Your task to perform on an android device: change notification settings in the gmail app Image 0: 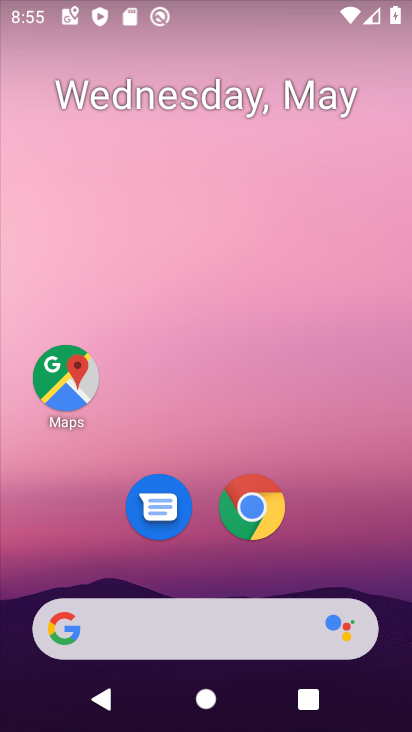
Step 0: drag from (349, 550) to (230, 87)
Your task to perform on an android device: change notification settings in the gmail app Image 1: 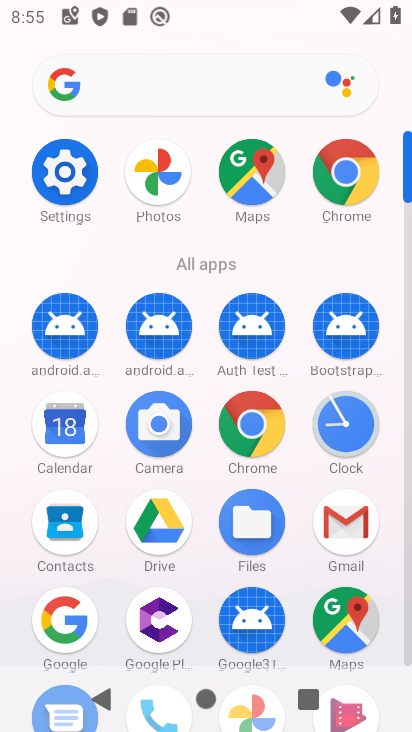
Step 1: click (361, 523)
Your task to perform on an android device: change notification settings in the gmail app Image 2: 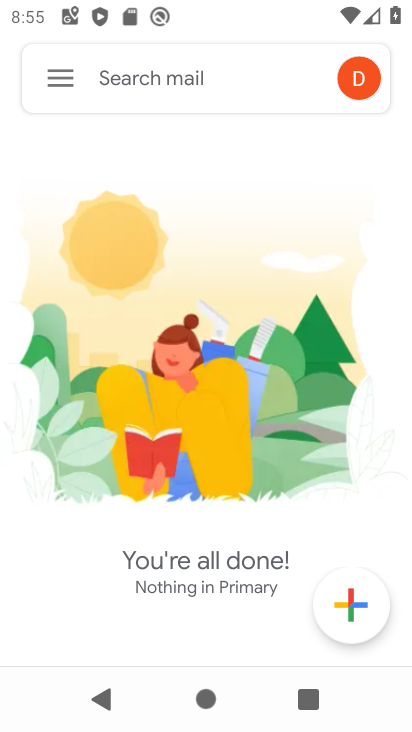
Step 2: click (61, 80)
Your task to perform on an android device: change notification settings in the gmail app Image 3: 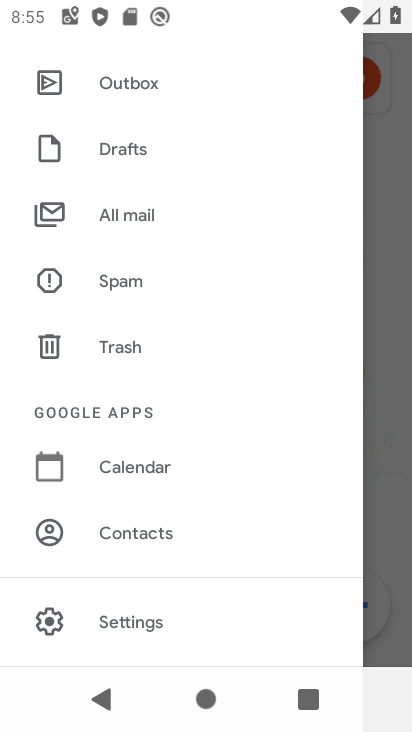
Step 3: click (157, 623)
Your task to perform on an android device: change notification settings in the gmail app Image 4: 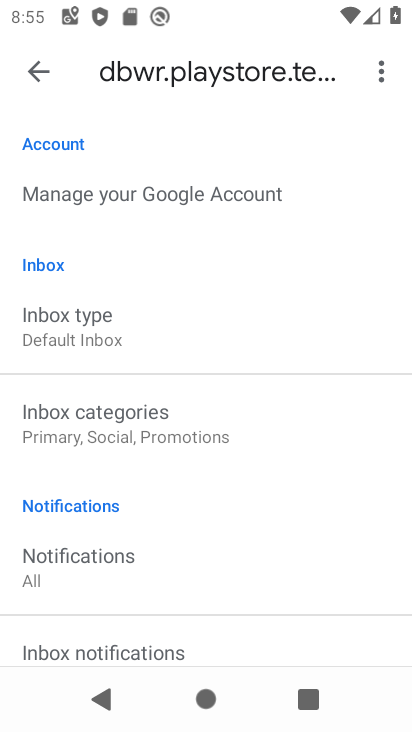
Step 4: drag from (251, 615) to (318, 238)
Your task to perform on an android device: change notification settings in the gmail app Image 5: 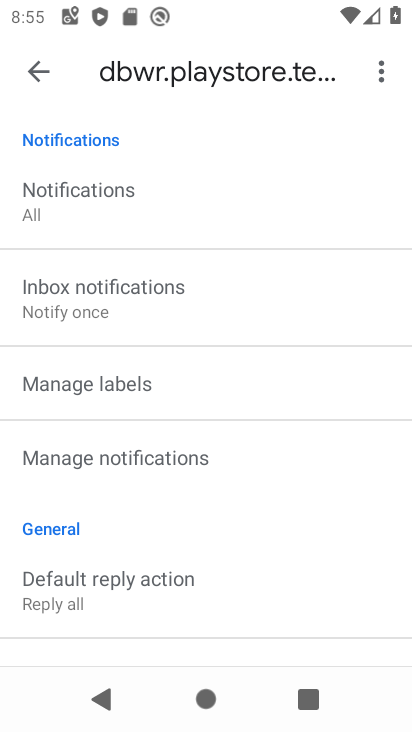
Step 5: click (294, 473)
Your task to perform on an android device: change notification settings in the gmail app Image 6: 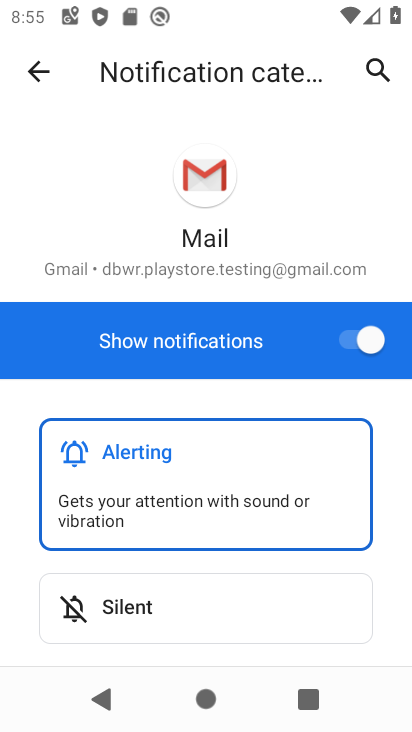
Step 6: drag from (294, 473) to (288, 200)
Your task to perform on an android device: change notification settings in the gmail app Image 7: 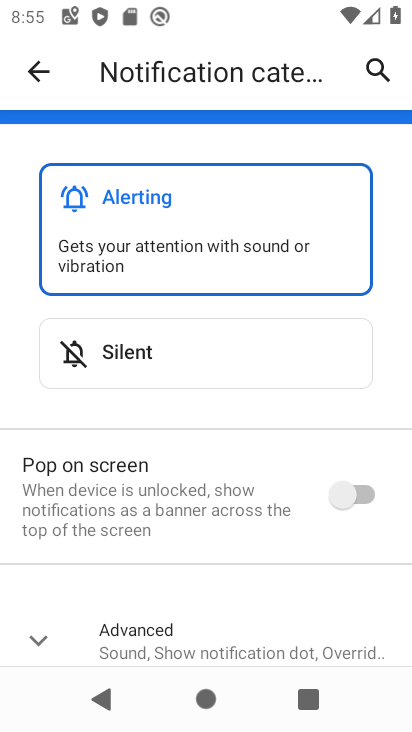
Step 7: click (308, 357)
Your task to perform on an android device: change notification settings in the gmail app Image 8: 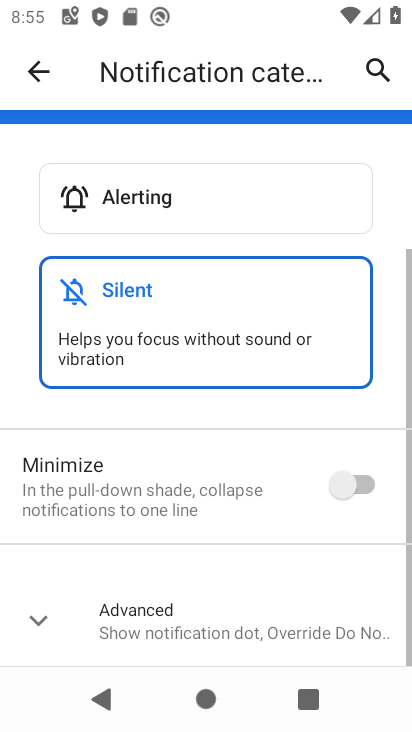
Step 8: click (364, 482)
Your task to perform on an android device: change notification settings in the gmail app Image 9: 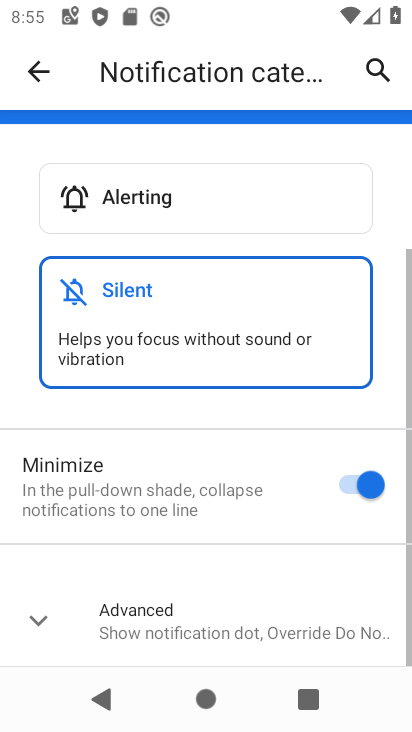
Step 9: drag from (340, 604) to (310, 274)
Your task to perform on an android device: change notification settings in the gmail app Image 10: 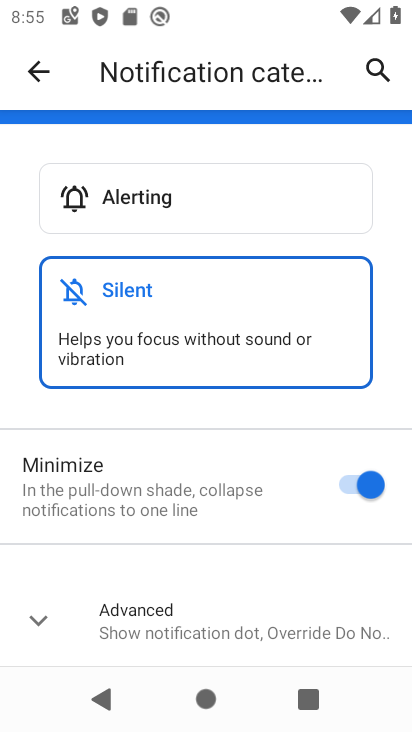
Step 10: click (324, 619)
Your task to perform on an android device: change notification settings in the gmail app Image 11: 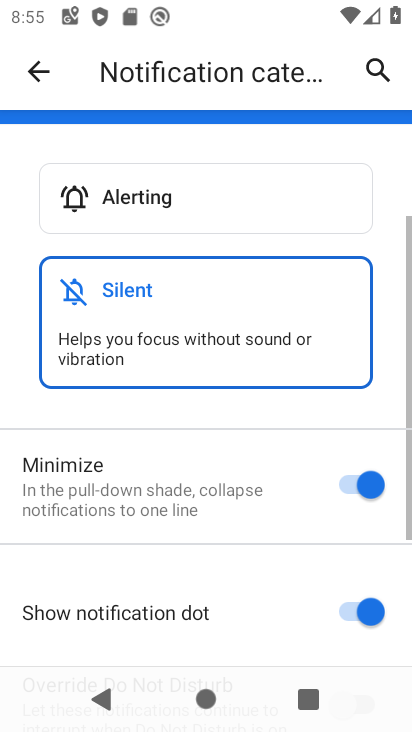
Step 11: drag from (293, 566) to (243, 164)
Your task to perform on an android device: change notification settings in the gmail app Image 12: 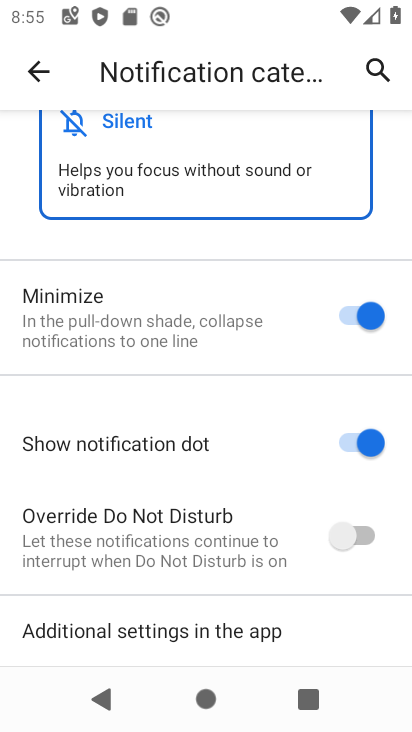
Step 12: click (359, 453)
Your task to perform on an android device: change notification settings in the gmail app Image 13: 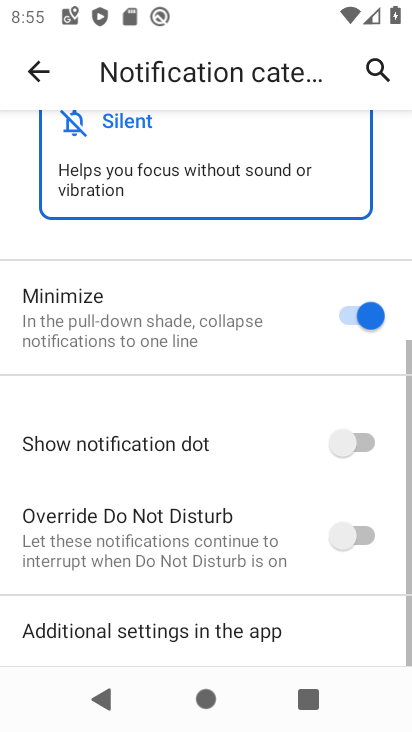
Step 13: click (367, 537)
Your task to perform on an android device: change notification settings in the gmail app Image 14: 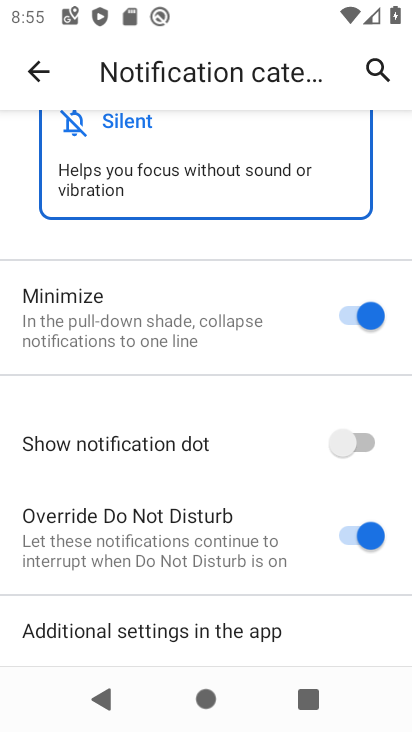
Step 14: task complete